Your task to perform on an android device: Do I have any events this weekend? Image 0: 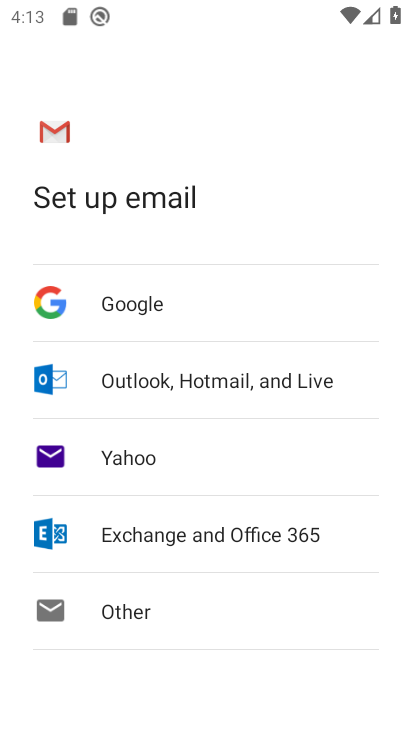
Step 0: press home button
Your task to perform on an android device: Do I have any events this weekend? Image 1: 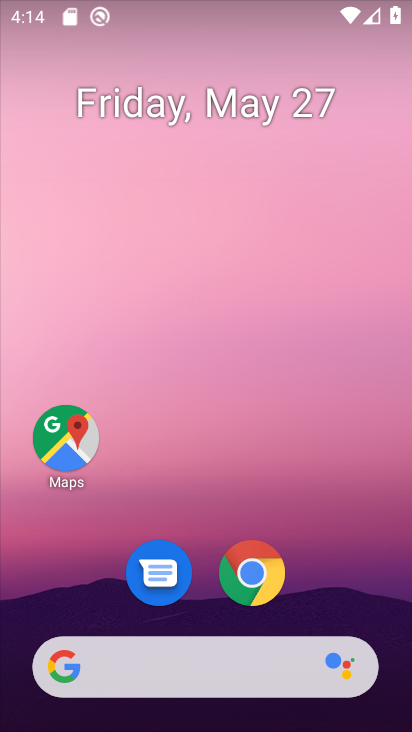
Step 1: drag from (230, 495) to (189, 24)
Your task to perform on an android device: Do I have any events this weekend? Image 2: 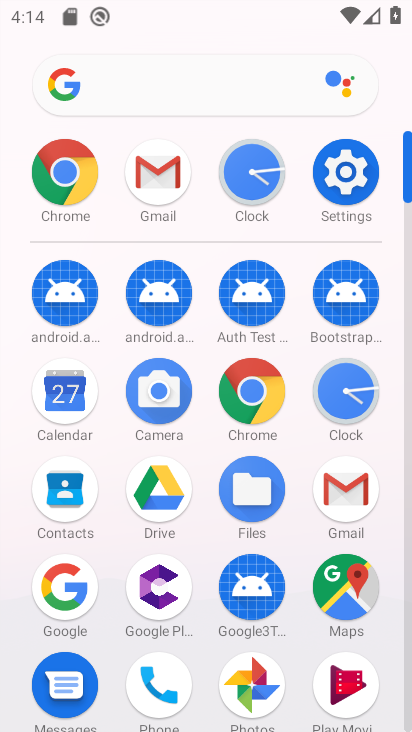
Step 2: click (62, 384)
Your task to perform on an android device: Do I have any events this weekend? Image 3: 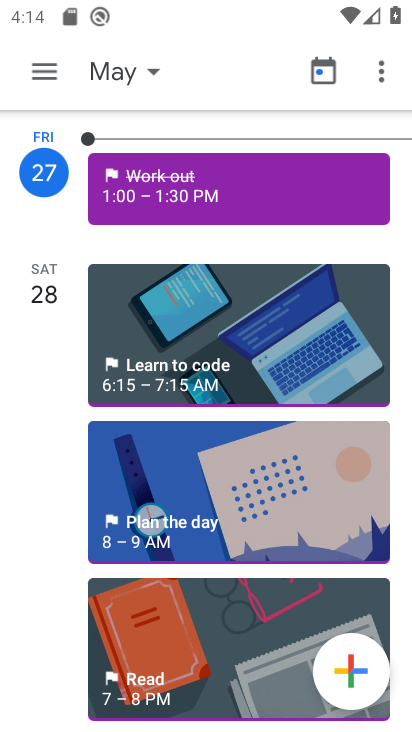
Step 3: task complete